Your task to perform on an android device: Open Google Chrome Image 0: 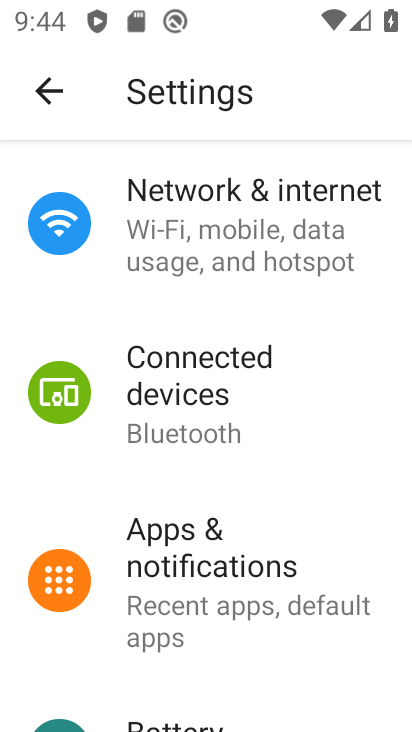
Step 0: press home button
Your task to perform on an android device: Open Google Chrome Image 1: 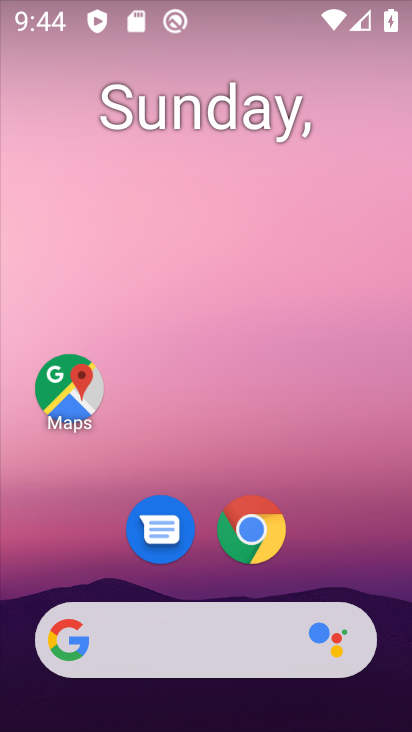
Step 1: click (258, 530)
Your task to perform on an android device: Open Google Chrome Image 2: 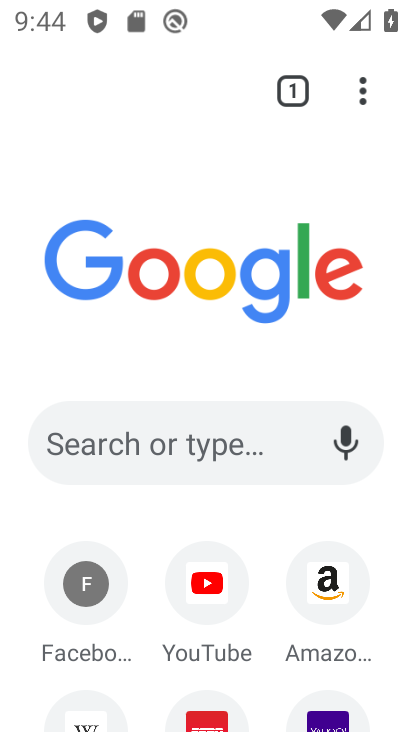
Step 2: task complete